Your task to perform on an android device: check out phone information Image 0: 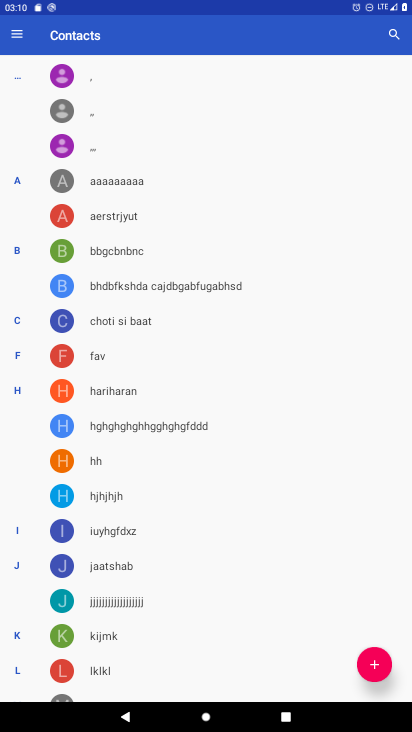
Step 0: press home button
Your task to perform on an android device: check out phone information Image 1: 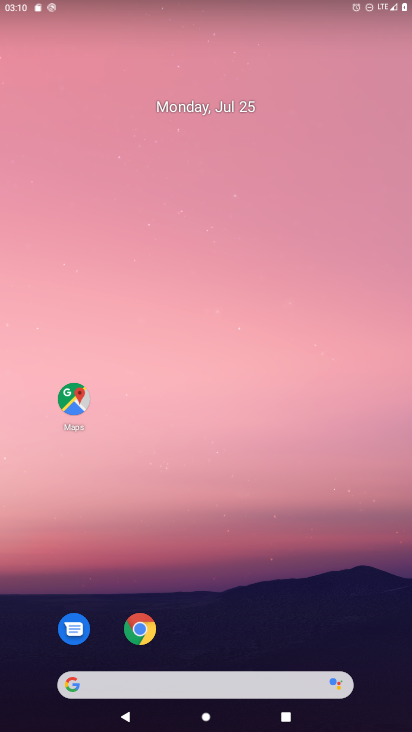
Step 1: drag from (223, 630) to (328, 70)
Your task to perform on an android device: check out phone information Image 2: 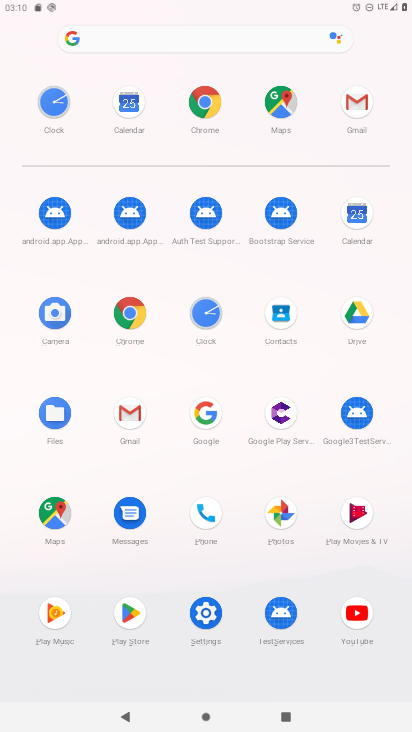
Step 2: click (205, 508)
Your task to perform on an android device: check out phone information Image 3: 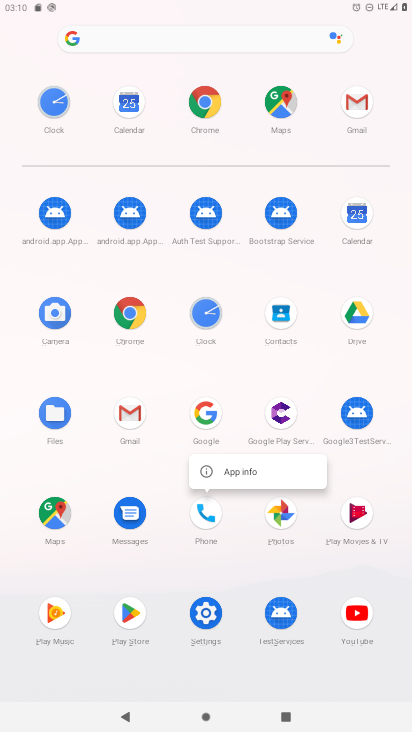
Step 3: click (254, 473)
Your task to perform on an android device: check out phone information Image 4: 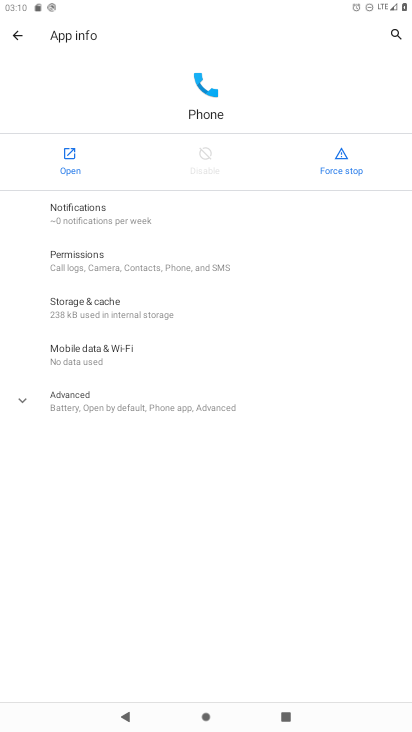
Step 4: task complete